Your task to perform on an android device: Is it going to rain this weekend? Image 0: 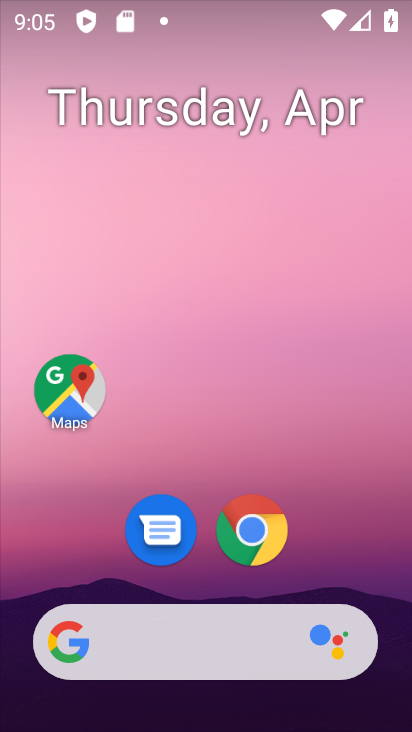
Step 0: drag from (347, 587) to (239, 60)
Your task to perform on an android device: Is it going to rain this weekend? Image 1: 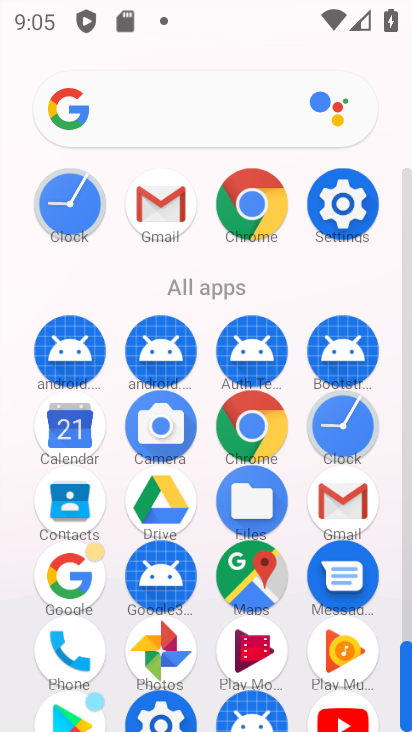
Step 1: press home button
Your task to perform on an android device: Is it going to rain this weekend? Image 2: 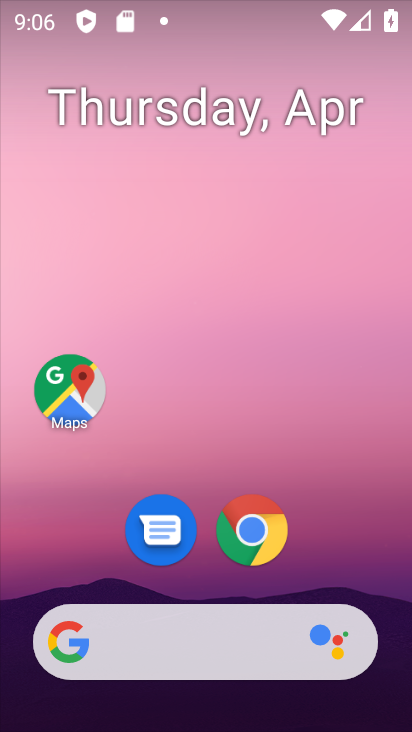
Step 2: click (157, 663)
Your task to perform on an android device: Is it going to rain this weekend? Image 3: 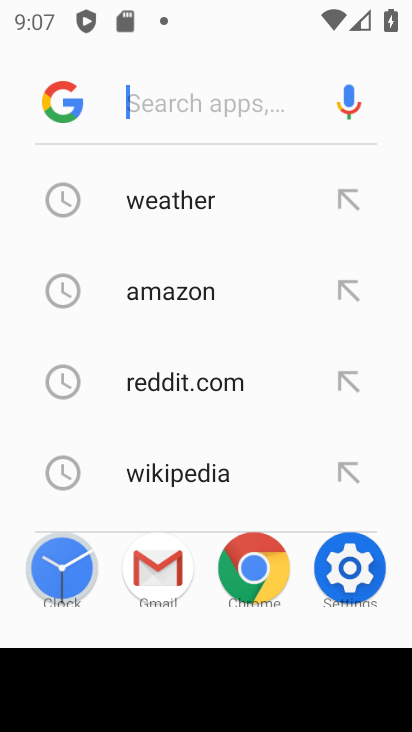
Step 3: click (194, 203)
Your task to perform on an android device: Is it going to rain this weekend? Image 4: 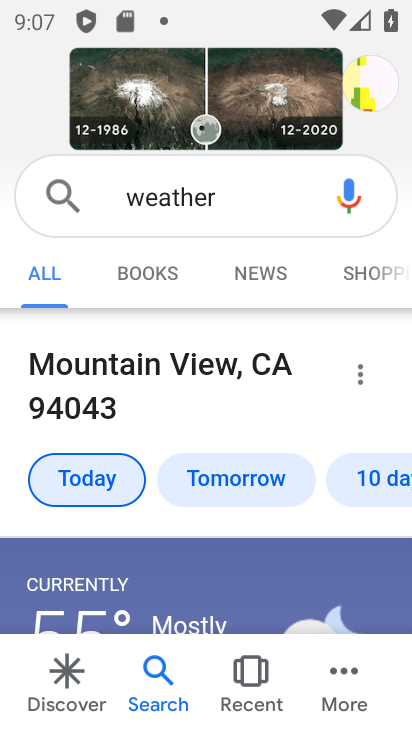
Step 4: drag from (215, 567) to (157, 110)
Your task to perform on an android device: Is it going to rain this weekend? Image 5: 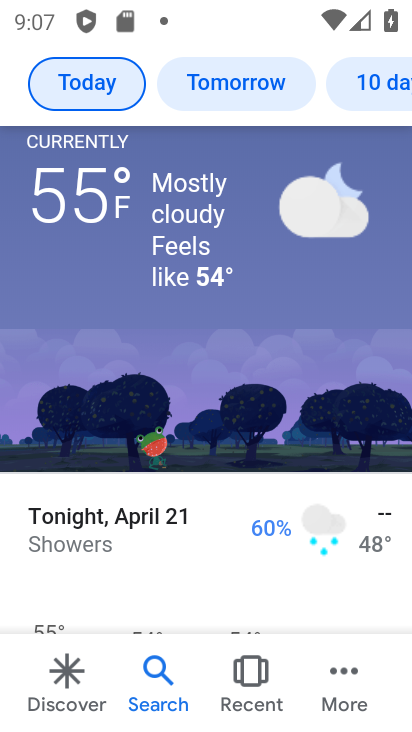
Step 5: drag from (209, 493) to (225, 93)
Your task to perform on an android device: Is it going to rain this weekend? Image 6: 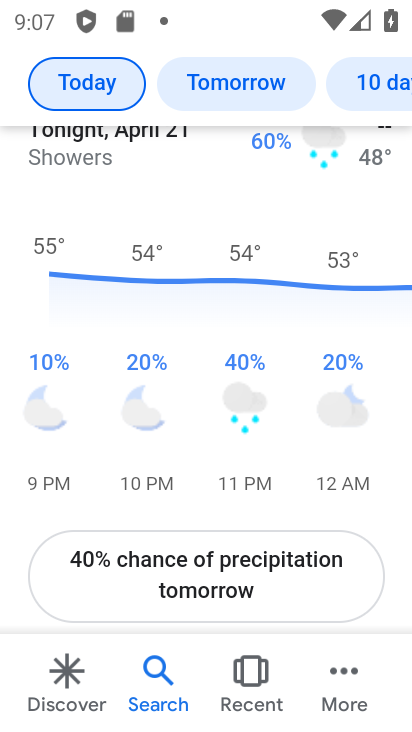
Step 6: drag from (170, 532) to (177, 178)
Your task to perform on an android device: Is it going to rain this weekend? Image 7: 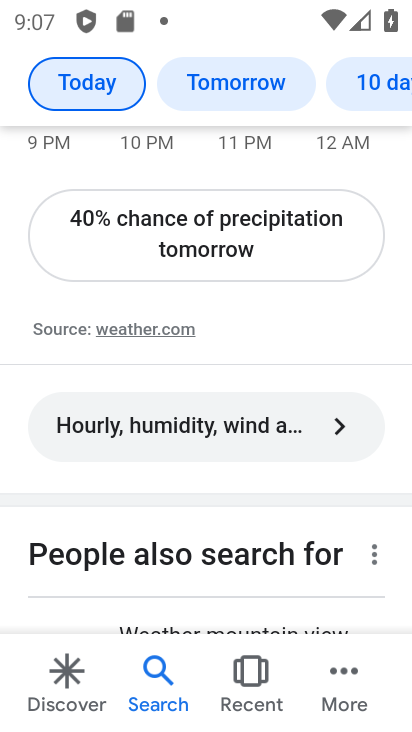
Step 7: drag from (219, 509) to (183, 161)
Your task to perform on an android device: Is it going to rain this weekend? Image 8: 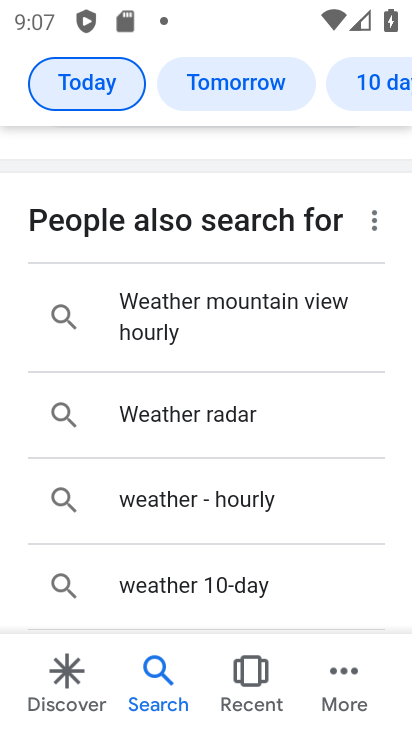
Step 8: click (277, 578)
Your task to perform on an android device: Is it going to rain this weekend? Image 9: 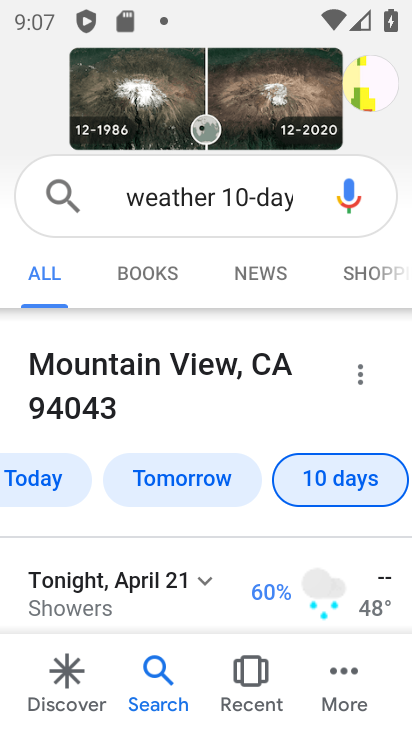
Step 9: task complete